Your task to perform on an android device: Empty the shopping cart on target. Search for "razer blade" on target, select the first entry, and add it to the cart. Image 0: 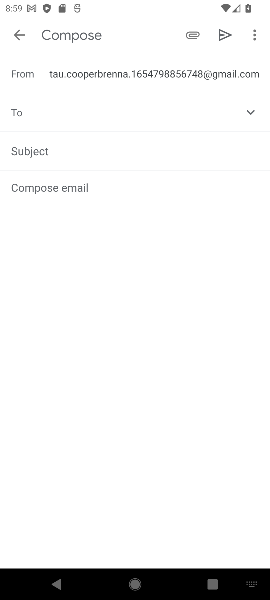
Step 0: press home button
Your task to perform on an android device: Empty the shopping cart on target. Search for "razer blade" on target, select the first entry, and add it to the cart. Image 1: 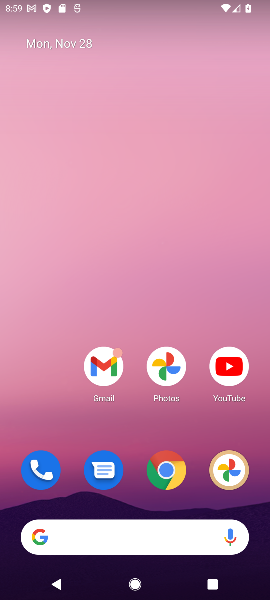
Step 1: drag from (125, 460) to (148, 199)
Your task to perform on an android device: Empty the shopping cart on target. Search for "razer blade" on target, select the first entry, and add it to the cart. Image 2: 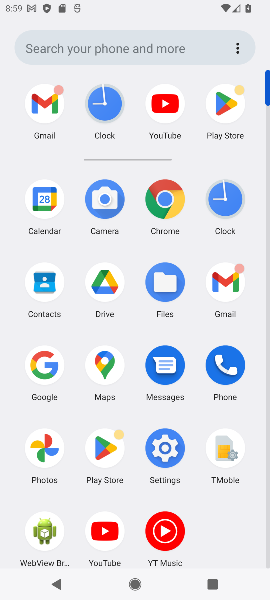
Step 2: click (41, 359)
Your task to perform on an android device: Empty the shopping cart on target. Search for "razer blade" on target, select the first entry, and add it to the cart. Image 3: 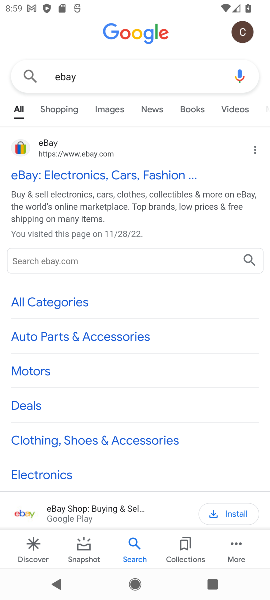
Step 3: click (142, 76)
Your task to perform on an android device: Empty the shopping cart on target. Search for "razer blade" on target, select the first entry, and add it to the cart. Image 4: 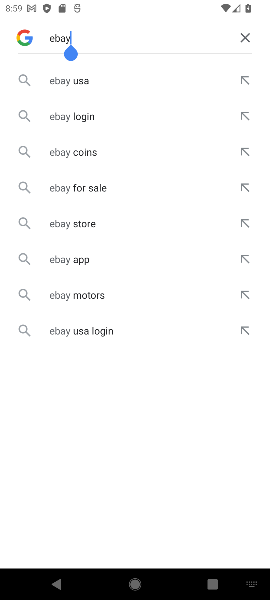
Step 4: click (245, 34)
Your task to perform on an android device: Empty the shopping cart on target. Search for "razer blade" on target, select the first entry, and add it to the cart. Image 5: 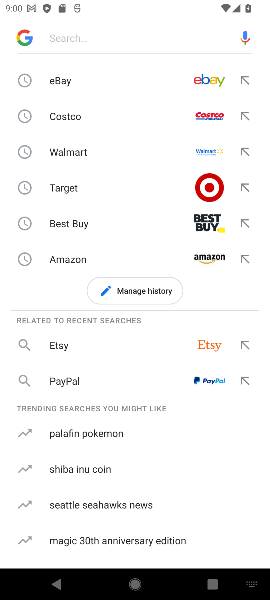
Step 5: click (69, 195)
Your task to perform on an android device: Empty the shopping cart on target. Search for "razer blade" on target, select the first entry, and add it to the cart. Image 6: 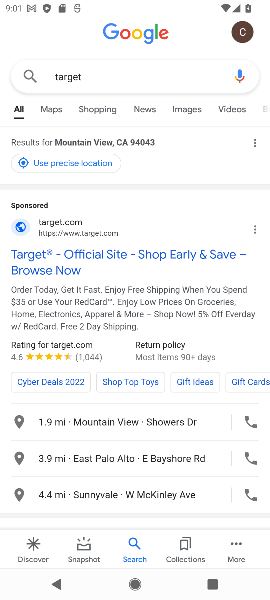
Step 6: press home button
Your task to perform on an android device: Empty the shopping cart on target. Search for "razer blade" on target, select the first entry, and add it to the cart. Image 7: 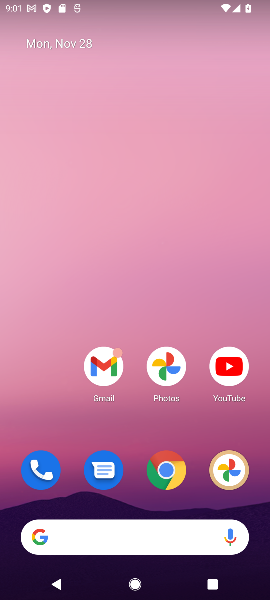
Step 7: click (145, 506)
Your task to perform on an android device: Empty the shopping cart on target. Search for "razer blade" on target, select the first entry, and add it to the cart. Image 8: 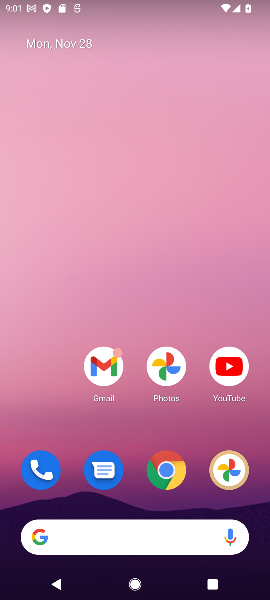
Step 8: click (127, 525)
Your task to perform on an android device: Empty the shopping cart on target. Search for "razer blade" on target, select the first entry, and add it to the cart. Image 9: 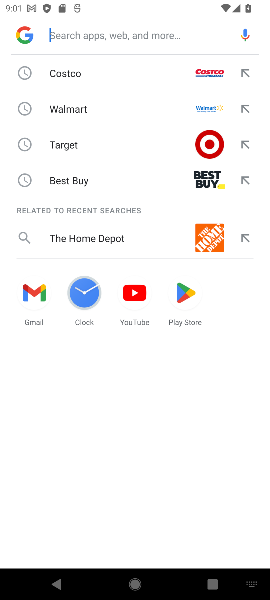
Step 9: click (102, 150)
Your task to perform on an android device: Empty the shopping cart on target. Search for "razer blade" on target, select the first entry, and add it to the cart. Image 10: 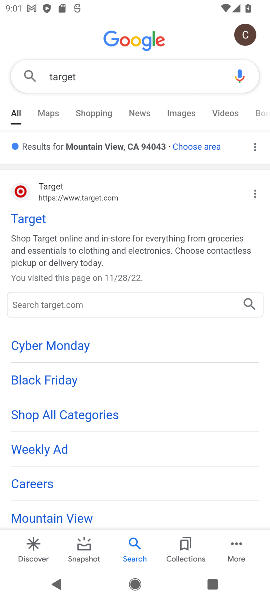
Step 10: click (23, 220)
Your task to perform on an android device: Empty the shopping cart on target. Search for "razer blade" on target, select the first entry, and add it to the cart. Image 11: 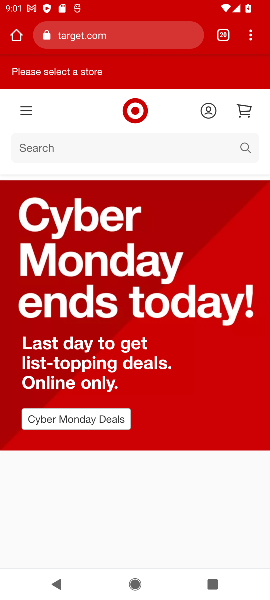
Step 11: click (103, 145)
Your task to perform on an android device: Empty the shopping cart on target. Search for "razer blade" on target, select the first entry, and add it to the cart. Image 12: 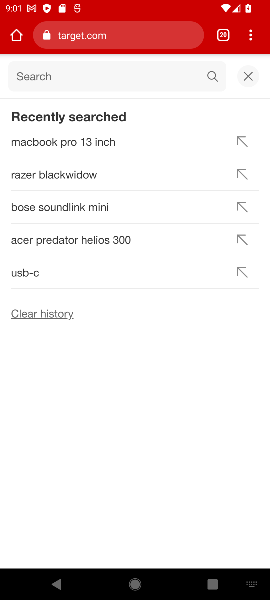
Step 12: click (122, 80)
Your task to perform on an android device: Empty the shopping cart on target. Search for "razer blade" on target, select the first entry, and add it to the cart. Image 13: 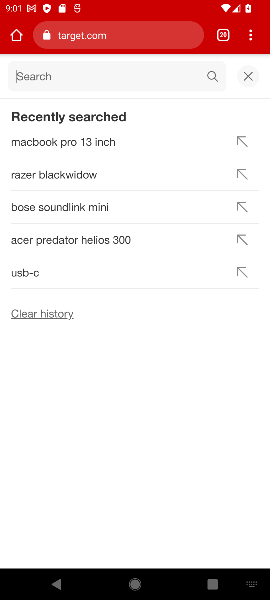
Step 13: type "razer blade"
Your task to perform on an android device: Empty the shopping cart on target. Search for "razer blade" on target, select the first entry, and add it to the cart. Image 14: 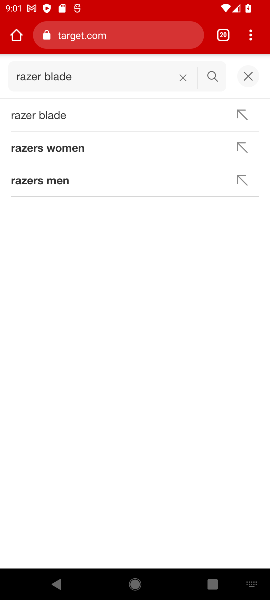
Step 14: click (55, 116)
Your task to perform on an android device: Empty the shopping cart on target. Search for "razer blade" on target, select the first entry, and add it to the cart. Image 15: 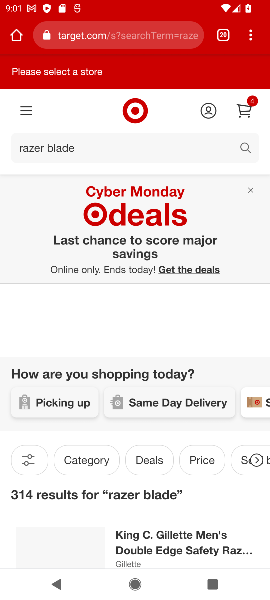
Step 15: drag from (141, 447) to (139, 243)
Your task to perform on an android device: Empty the shopping cart on target. Search for "razer blade" on target, select the first entry, and add it to the cart. Image 16: 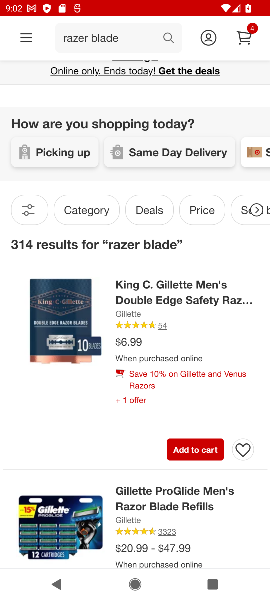
Step 16: click (196, 447)
Your task to perform on an android device: Empty the shopping cart on target. Search for "razer blade" on target, select the first entry, and add it to the cart. Image 17: 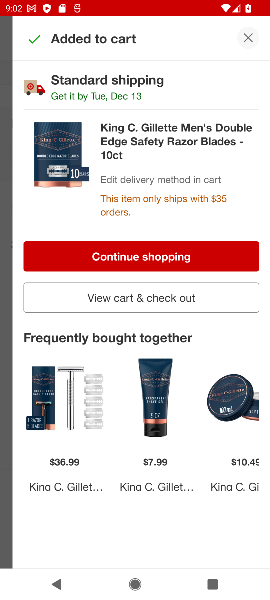
Step 17: click (136, 300)
Your task to perform on an android device: Empty the shopping cart on target. Search for "razer blade" on target, select the first entry, and add it to the cart. Image 18: 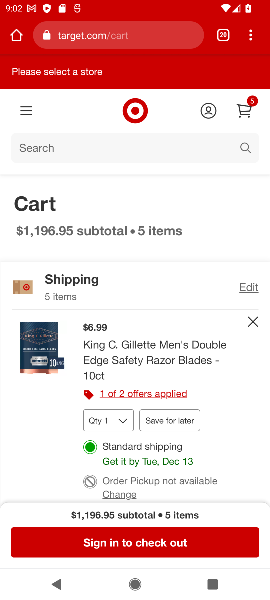
Step 18: click (148, 542)
Your task to perform on an android device: Empty the shopping cart on target. Search for "razer blade" on target, select the first entry, and add it to the cart. Image 19: 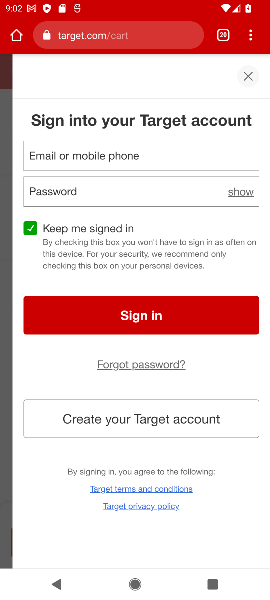
Step 19: task complete